Your task to perform on an android device: Search for pizza restaurants on Maps Image 0: 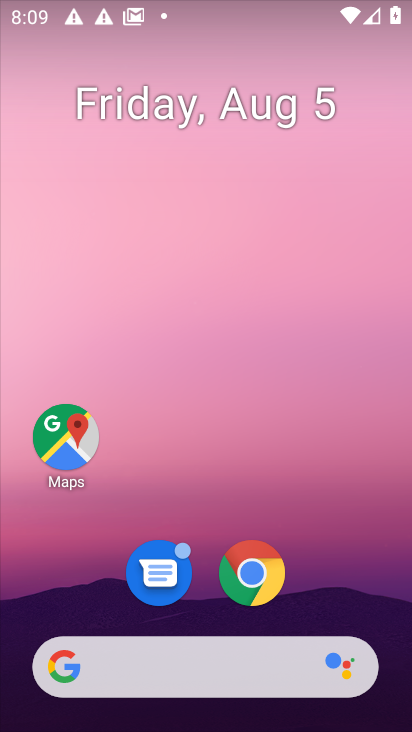
Step 0: click (70, 439)
Your task to perform on an android device: Search for pizza restaurants on Maps Image 1: 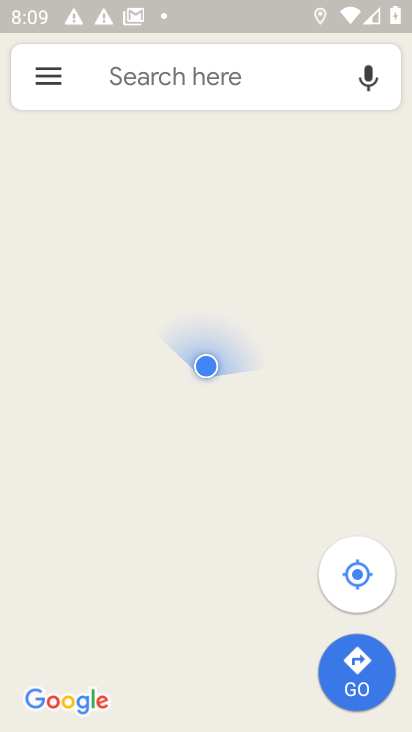
Step 1: click (148, 76)
Your task to perform on an android device: Search for pizza restaurants on Maps Image 2: 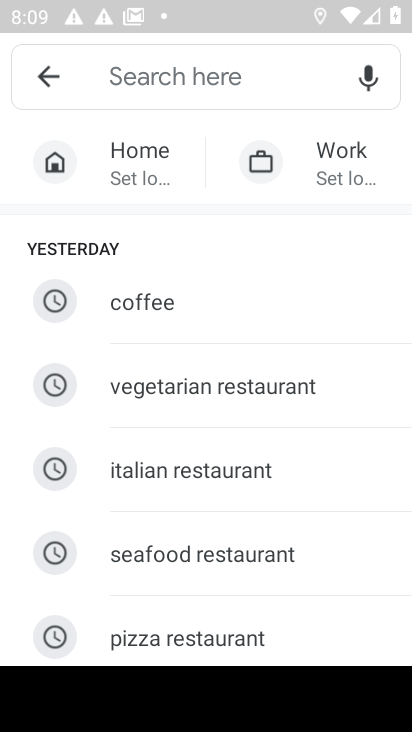
Step 2: type "pizza restaurants"
Your task to perform on an android device: Search for pizza restaurants on Maps Image 3: 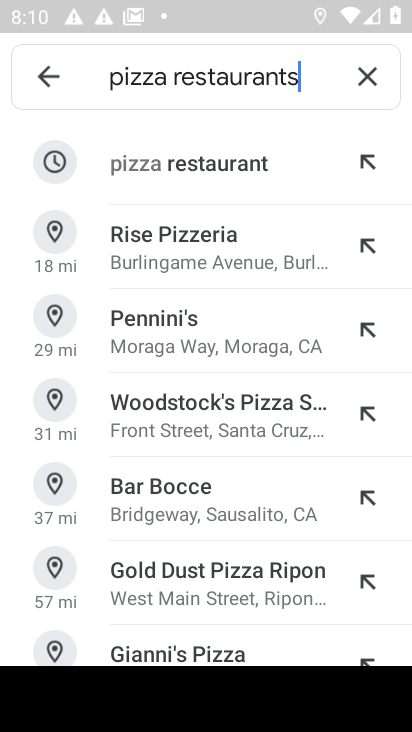
Step 3: click (146, 157)
Your task to perform on an android device: Search for pizza restaurants on Maps Image 4: 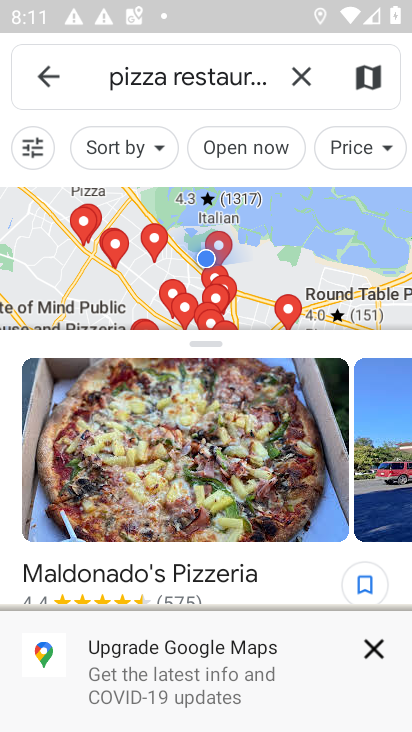
Step 4: task complete